Your task to perform on an android device: open chrome and create a bookmark for the current page Image 0: 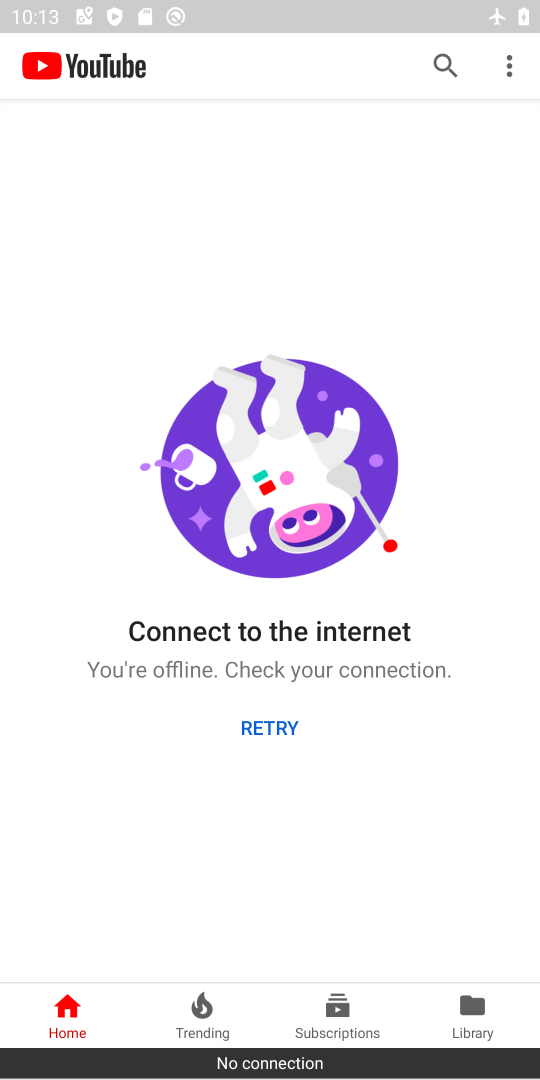
Step 0: press home button
Your task to perform on an android device: open chrome and create a bookmark for the current page Image 1: 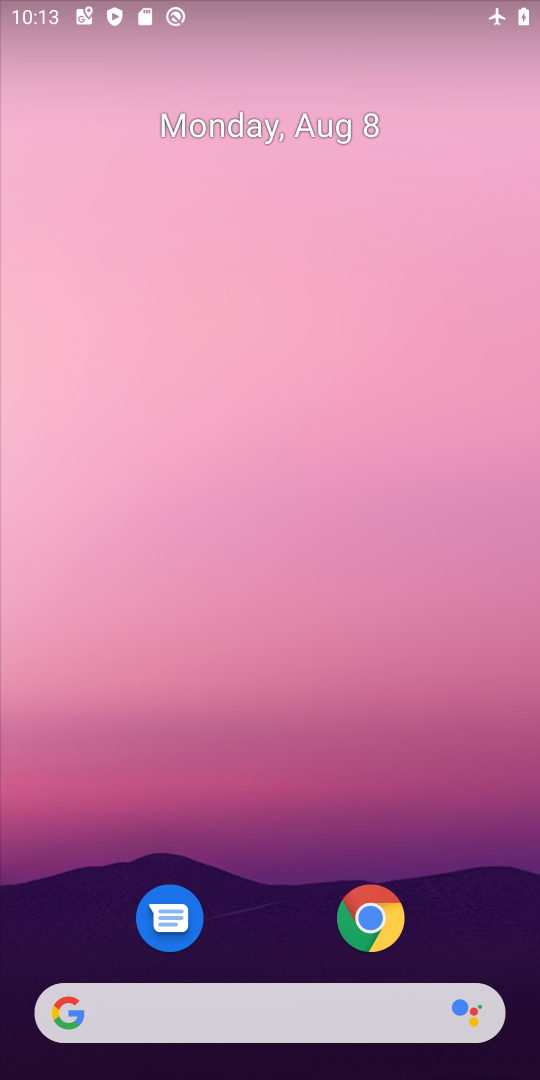
Step 1: drag from (308, 968) to (178, 201)
Your task to perform on an android device: open chrome and create a bookmark for the current page Image 2: 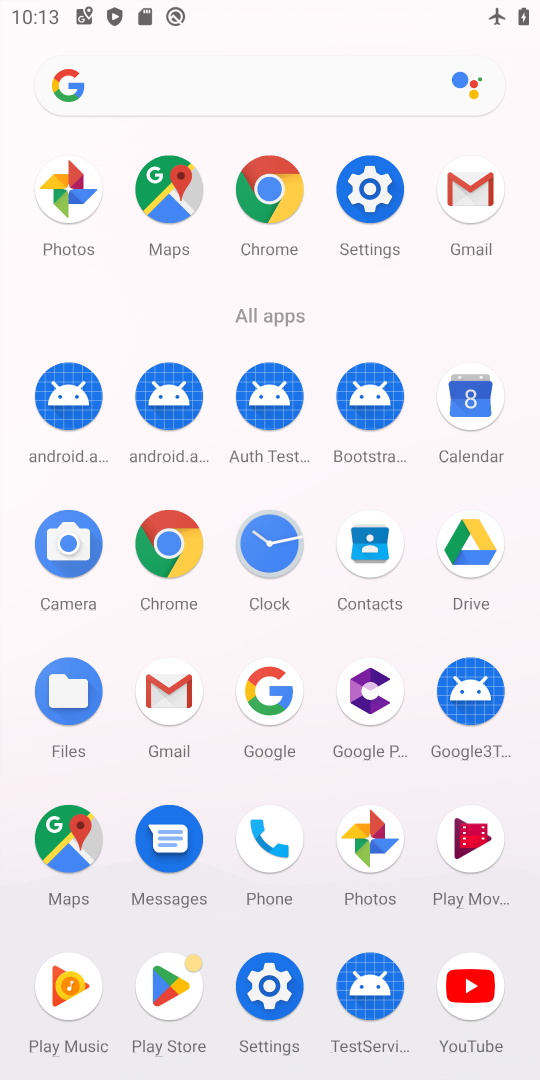
Step 2: click (179, 547)
Your task to perform on an android device: open chrome and create a bookmark for the current page Image 3: 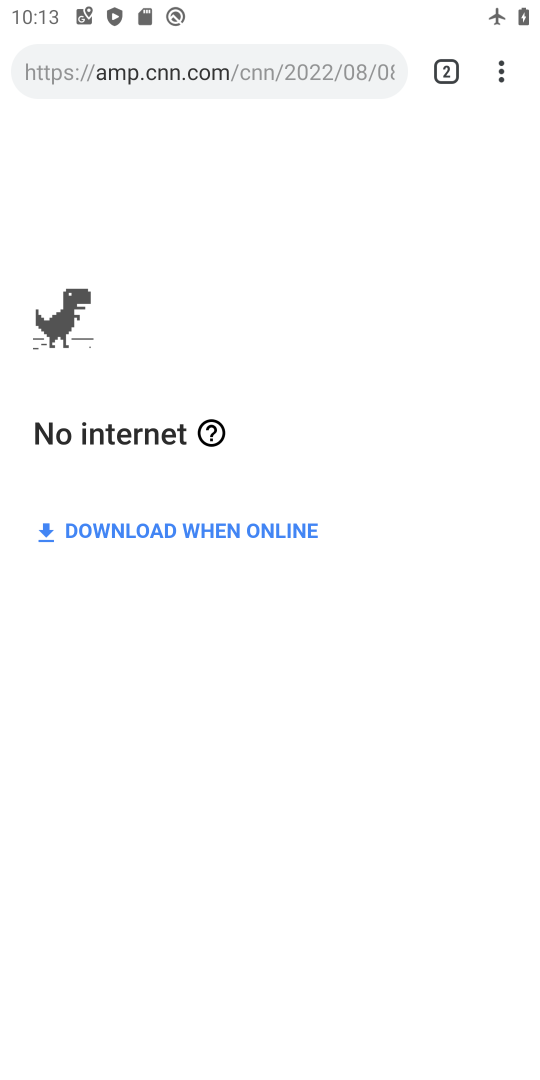
Step 3: click (510, 63)
Your task to perform on an android device: open chrome and create a bookmark for the current page Image 4: 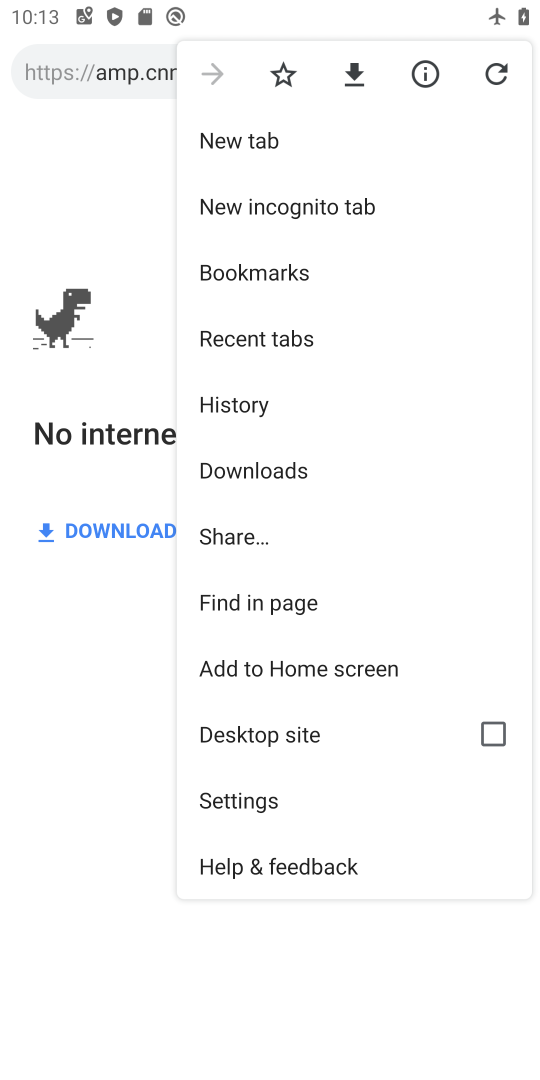
Step 4: click (239, 285)
Your task to perform on an android device: open chrome and create a bookmark for the current page Image 5: 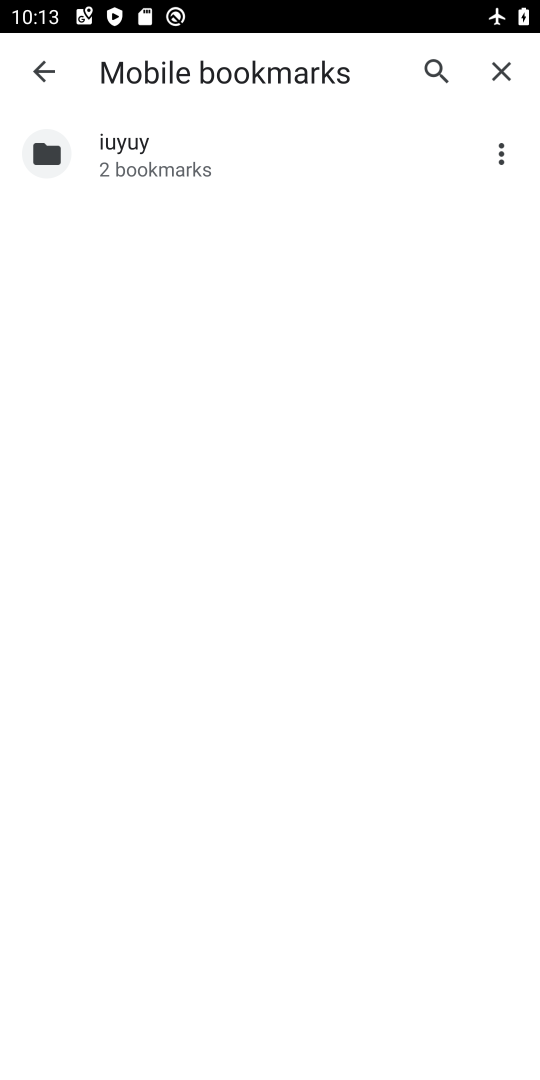
Step 5: click (504, 171)
Your task to perform on an android device: open chrome and create a bookmark for the current page Image 6: 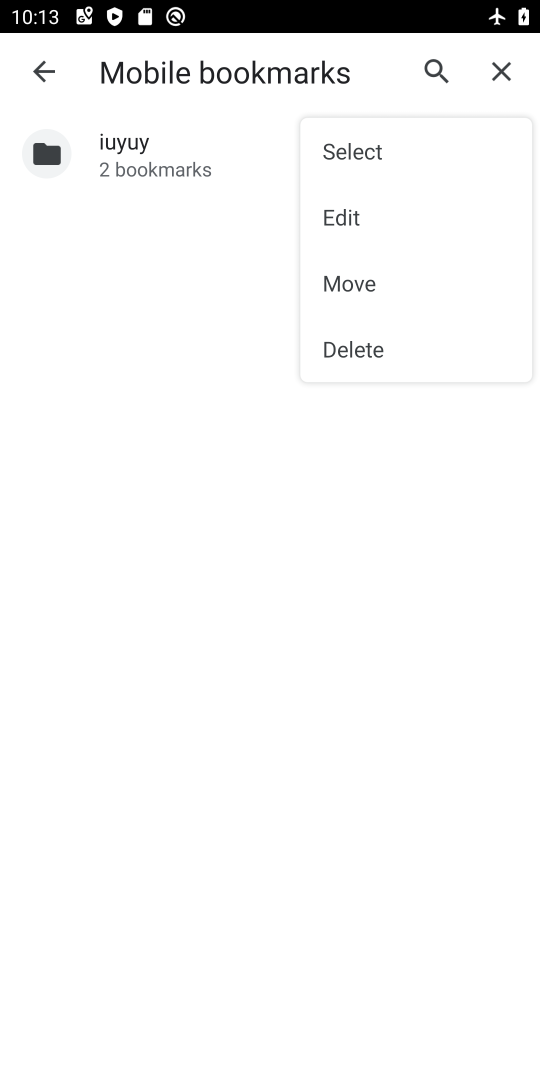
Step 6: click (254, 421)
Your task to perform on an android device: open chrome and create a bookmark for the current page Image 7: 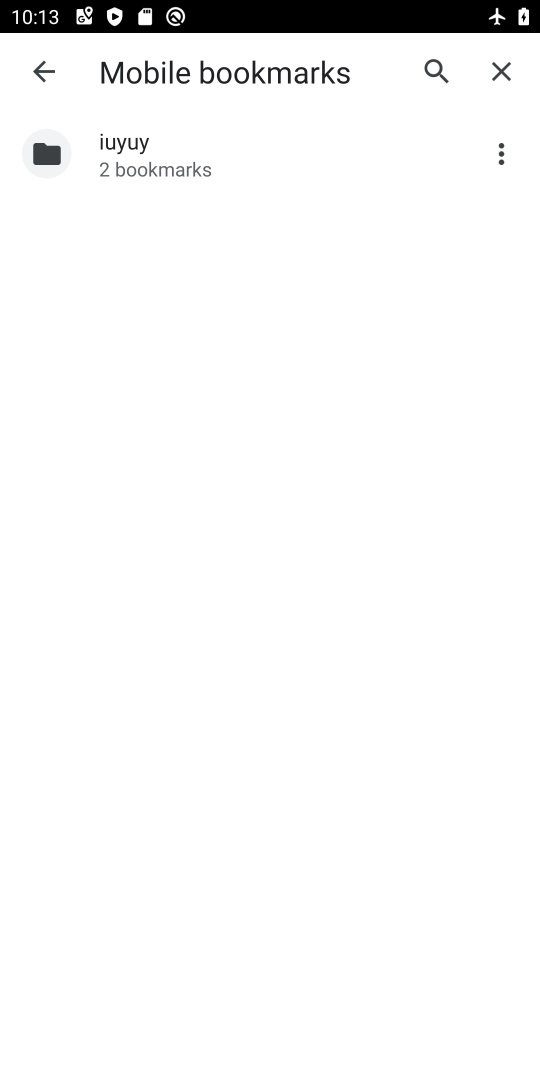
Step 7: click (34, 82)
Your task to perform on an android device: open chrome and create a bookmark for the current page Image 8: 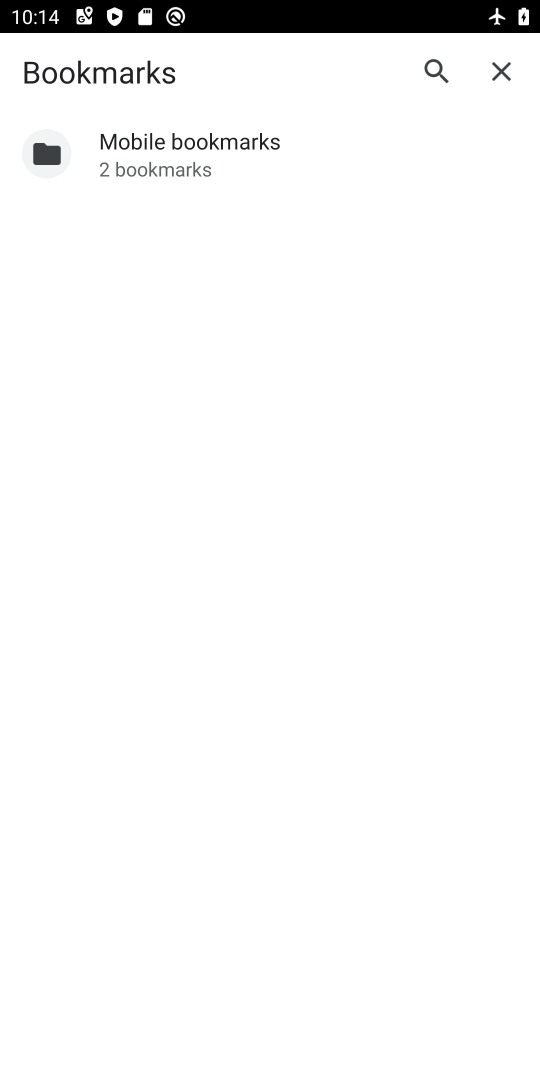
Step 8: click (223, 170)
Your task to perform on an android device: open chrome and create a bookmark for the current page Image 9: 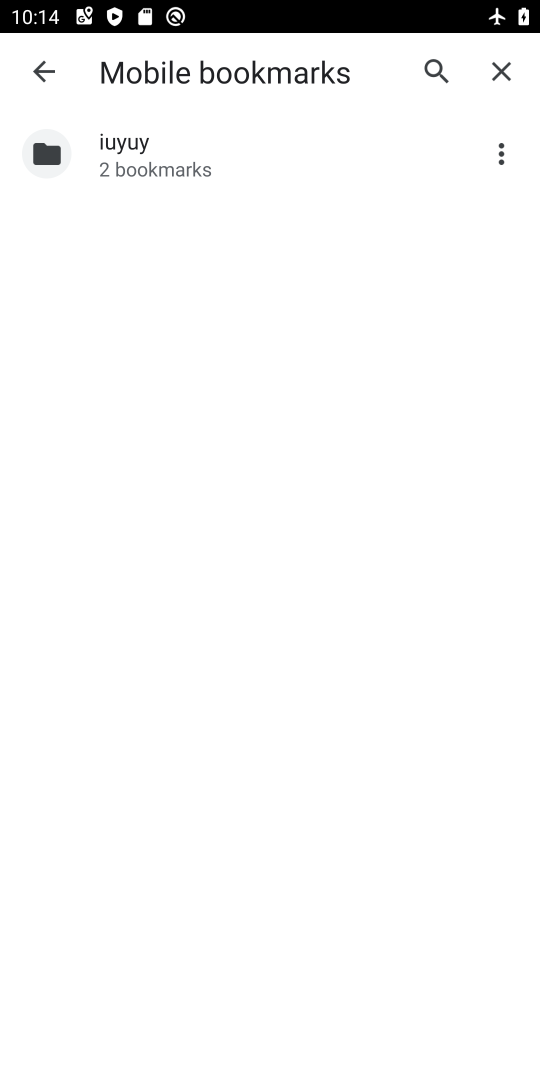
Step 9: task complete